Your task to perform on an android device: open app "NewsBreak: Local News & Alerts" (install if not already installed) and enter user name: "switch@outlook.com" and password: "fabrics" Image 0: 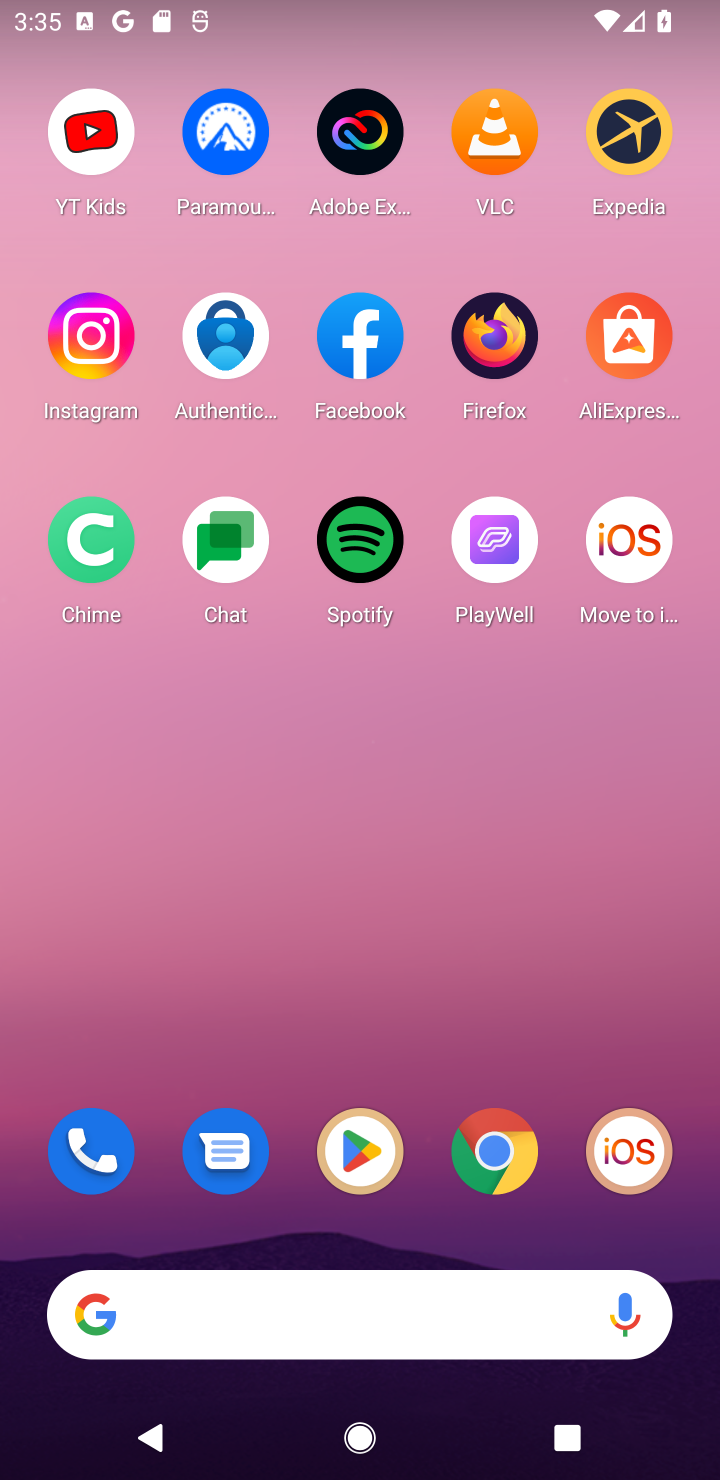
Step 0: press home button
Your task to perform on an android device: open app "NewsBreak: Local News & Alerts" (install if not already installed) and enter user name: "switch@outlook.com" and password: "fabrics" Image 1: 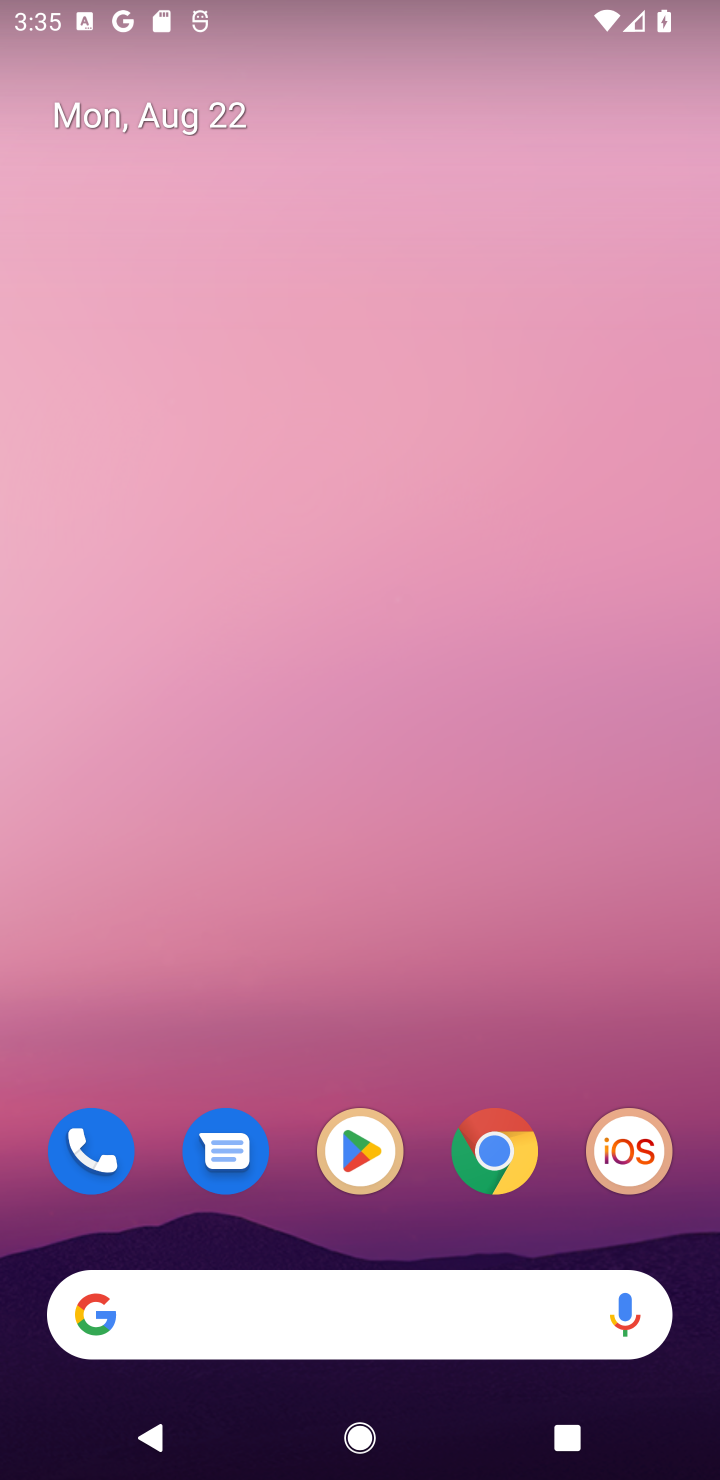
Step 1: click (365, 1136)
Your task to perform on an android device: open app "NewsBreak: Local News & Alerts" (install if not already installed) and enter user name: "switch@outlook.com" and password: "fabrics" Image 2: 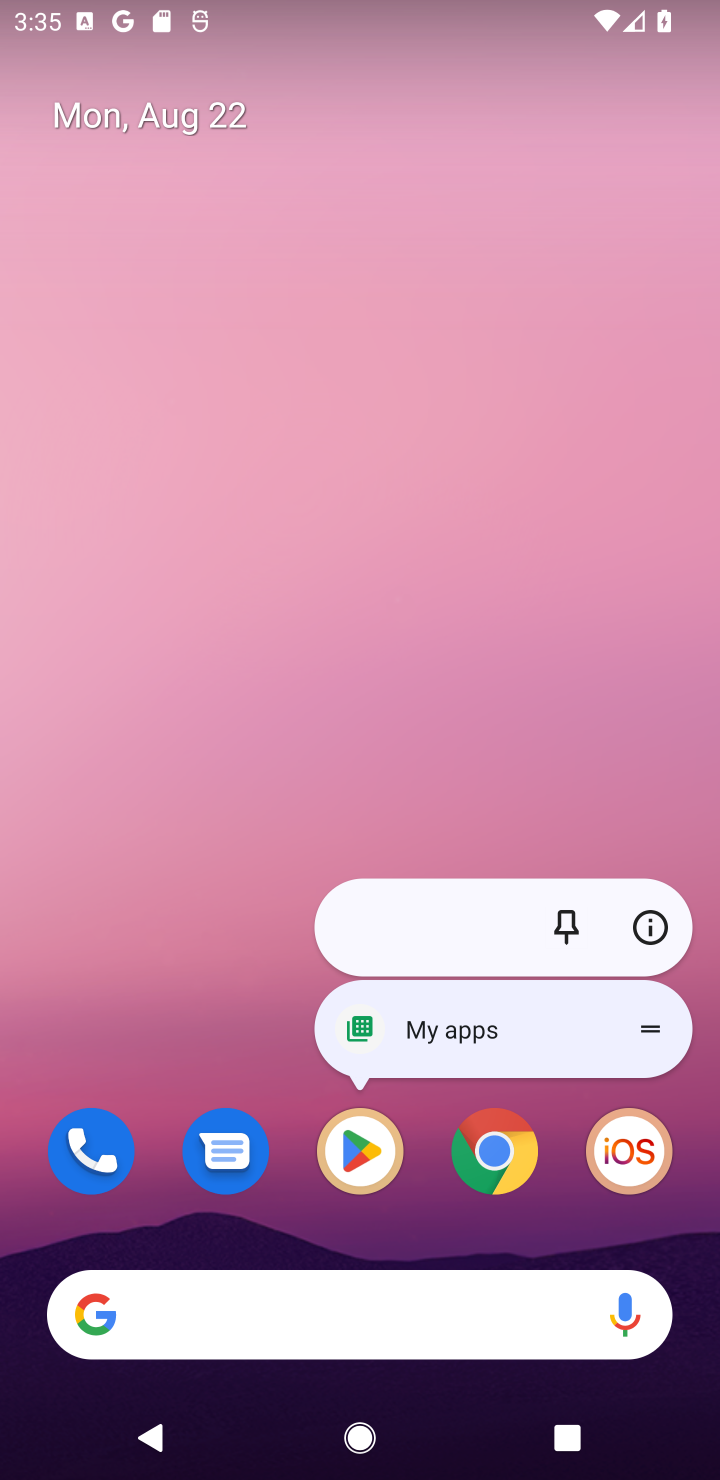
Step 2: click (365, 1143)
Your task to perform on an android device: open app "NewsBreak: Local News & Alerts" (install if not already installed) and enter user name: "switch@outlook.com" and password: "fabrics" Image 3: 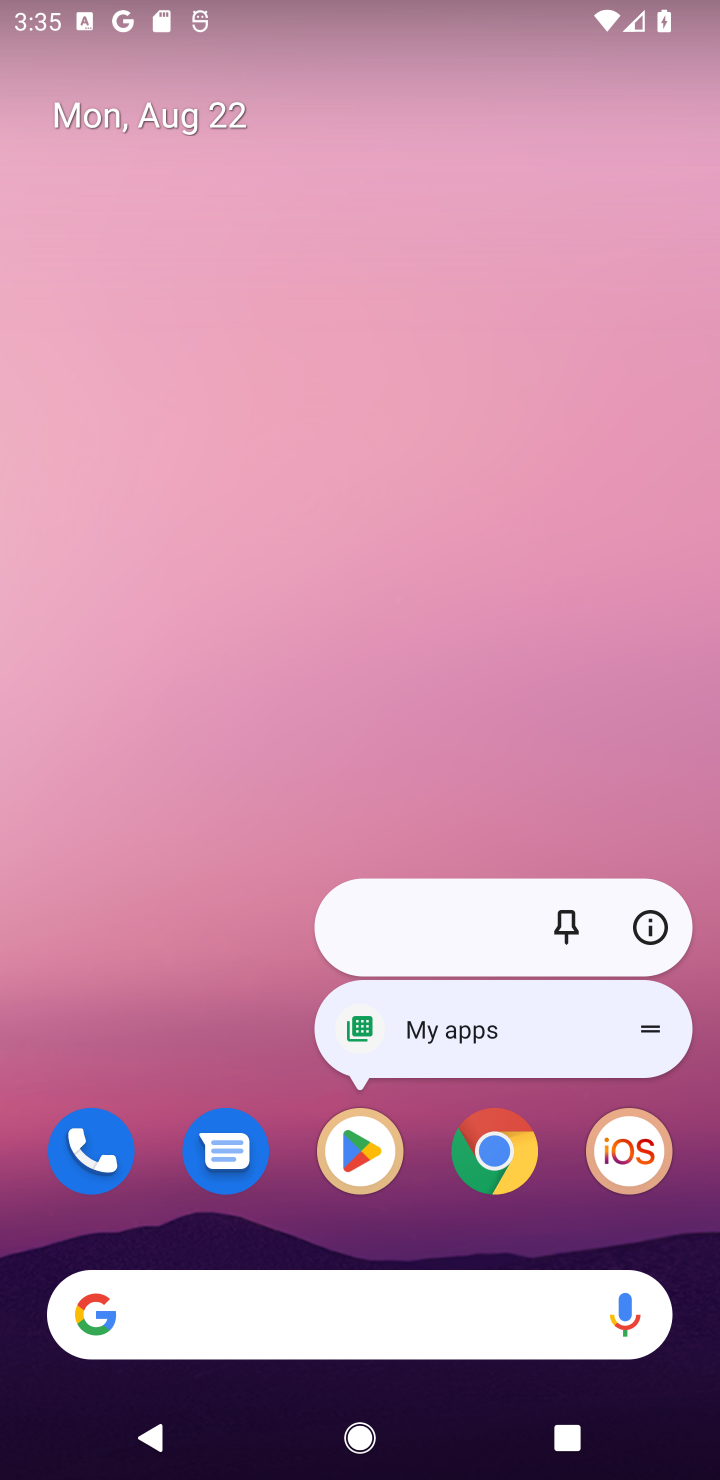
Step 3: click (365, 1134)
Your task to perform on an android device: open app "NewsBreak: Local News & Alerts" (install if not already installed) and enter user name: "switch@outlook.com" and password: "fabrics" Image 4: 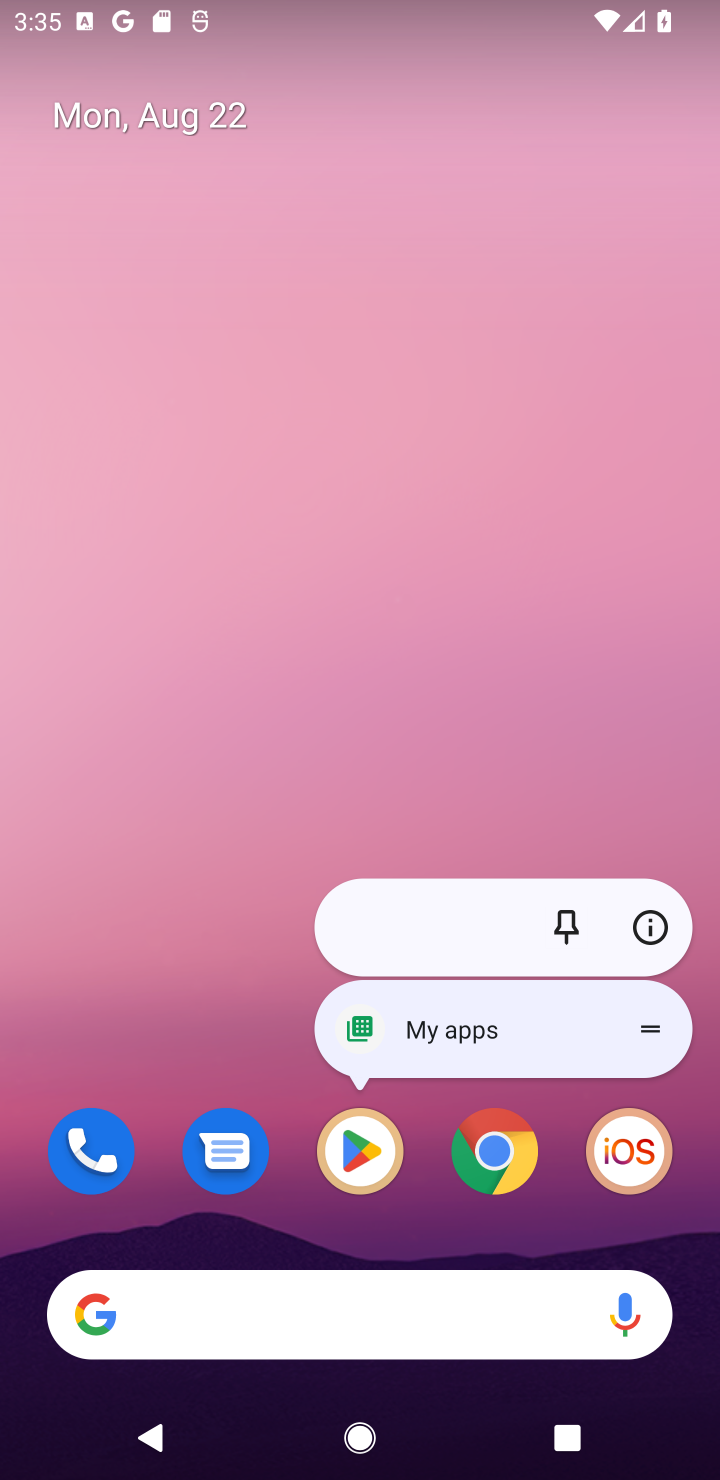
Step 4: click (359, 1153)
Your task to perform on an android device: open app "NewsBreak: Local News & Alerts" (install if not already installed) and enter user name: "switch@outlook.com" and password: "fabrics" Image 5: 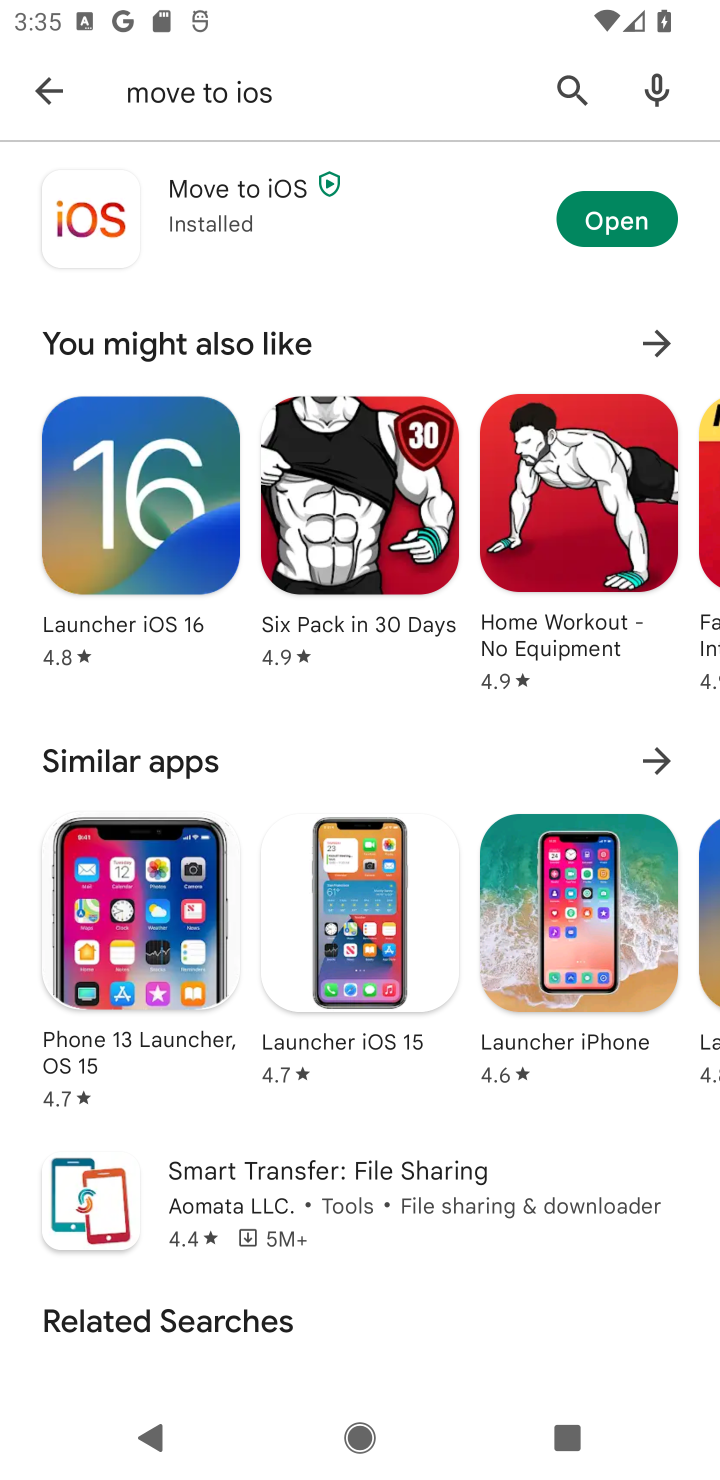
Step 5: click (562, 91)
Your task to perform on an android device: open app "NewsBreak: Local News & Alerts" (install if not already installed) and enter user name: "switch@outlook.com" and password: "fabrics" Image 6: 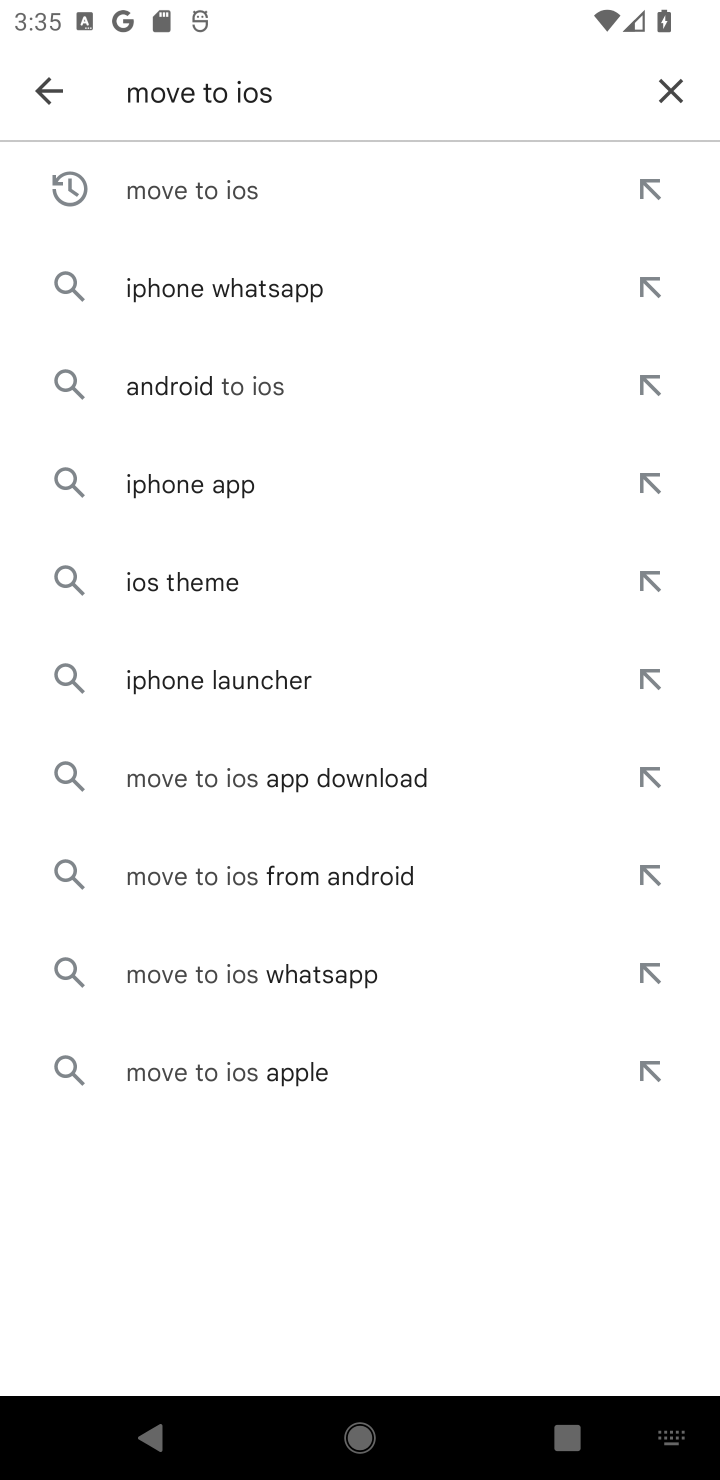
Step 6: click (681, 78)
Your task to perform on an android device: open app "NewsBreak: Local News & Alerts" (install if not already installed) and enter user name: "switch@outlook.com" and password: "fabrics" Image 7: 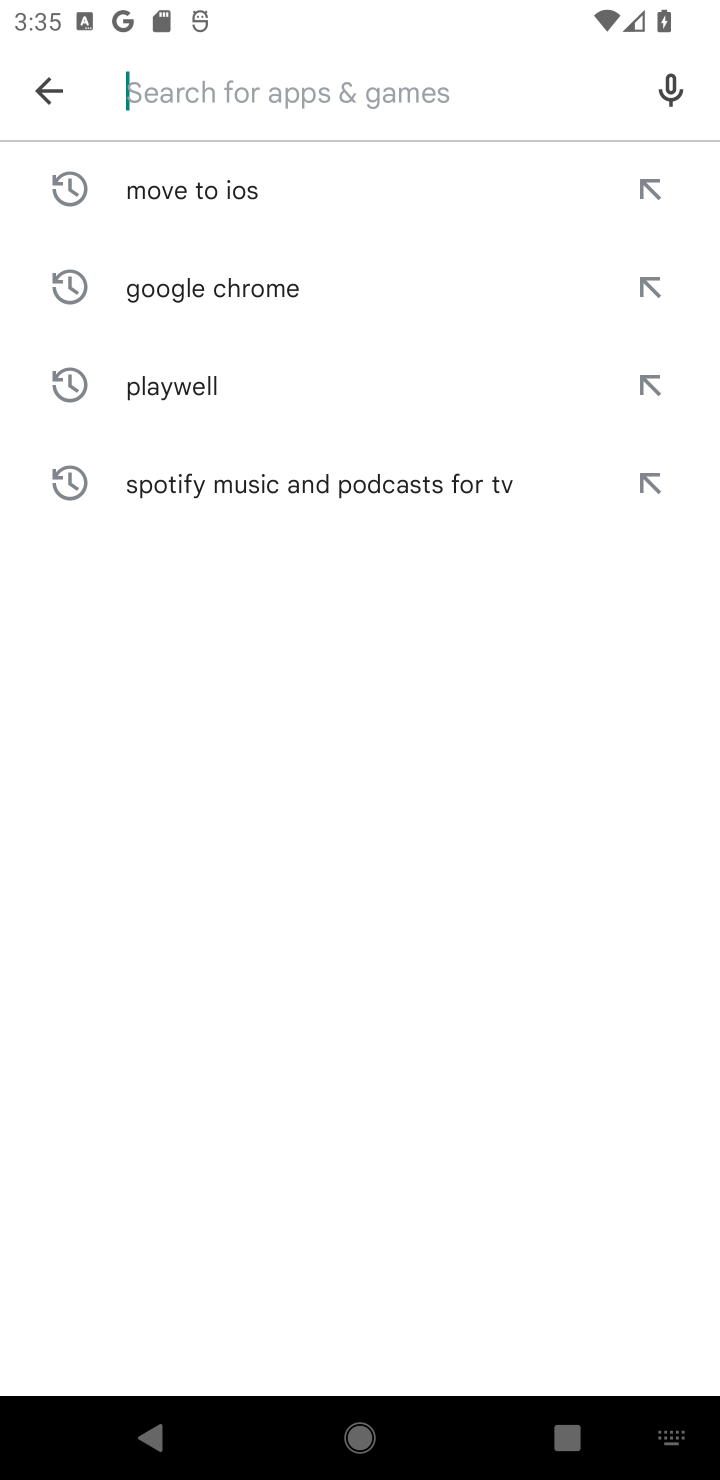
Step 7: type "NewsBreak: Local News & Alerts"
Your task to perform on an android device: open app "NewsBreak: Local News & Alerts" (install if not already installed) and enter user name: "switch@outlook.com" and password: "fabrics" Image 8: 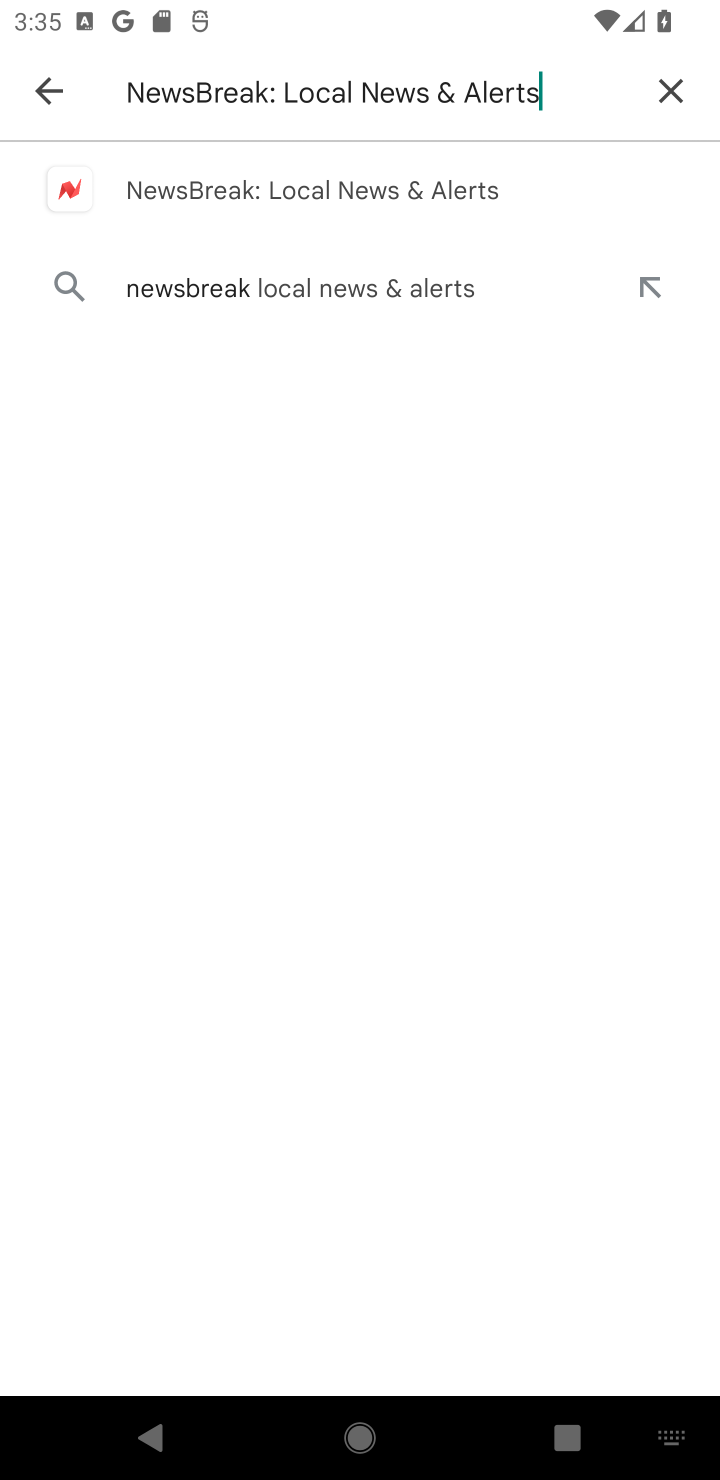
Step 8: click (361, 193)
Your task to perform on an android device: open app "NewsBreak: Local News & Alerts" (install if not already installed) and enter user name: "switch@outlook.com" and password: "fabrics" Image 9: 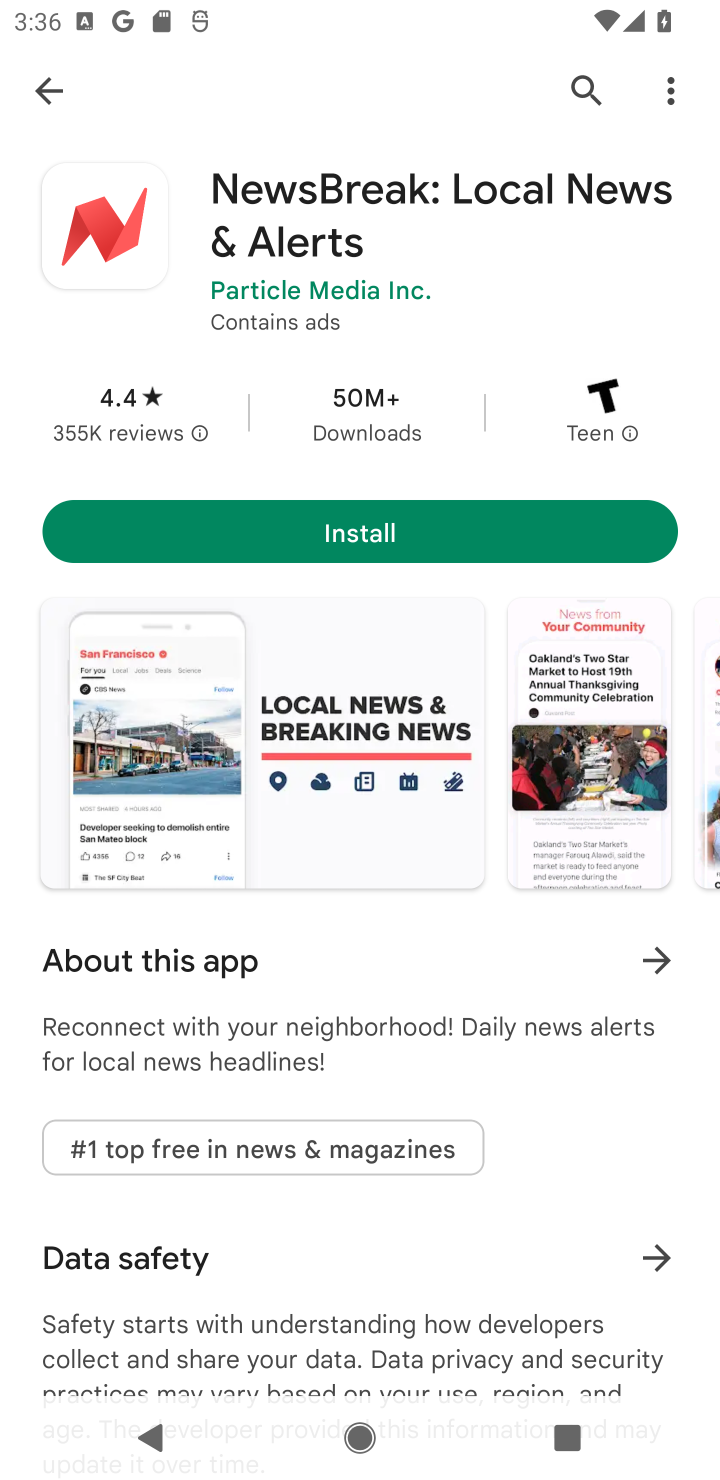
Step 9: click (348, 538)
Your task to perform on an android device: open app "NewsBreak: Local News & Alerts" (install if not already installed) and enter user name: "switch@outlook.com" and password: "fabrics" Image 10: 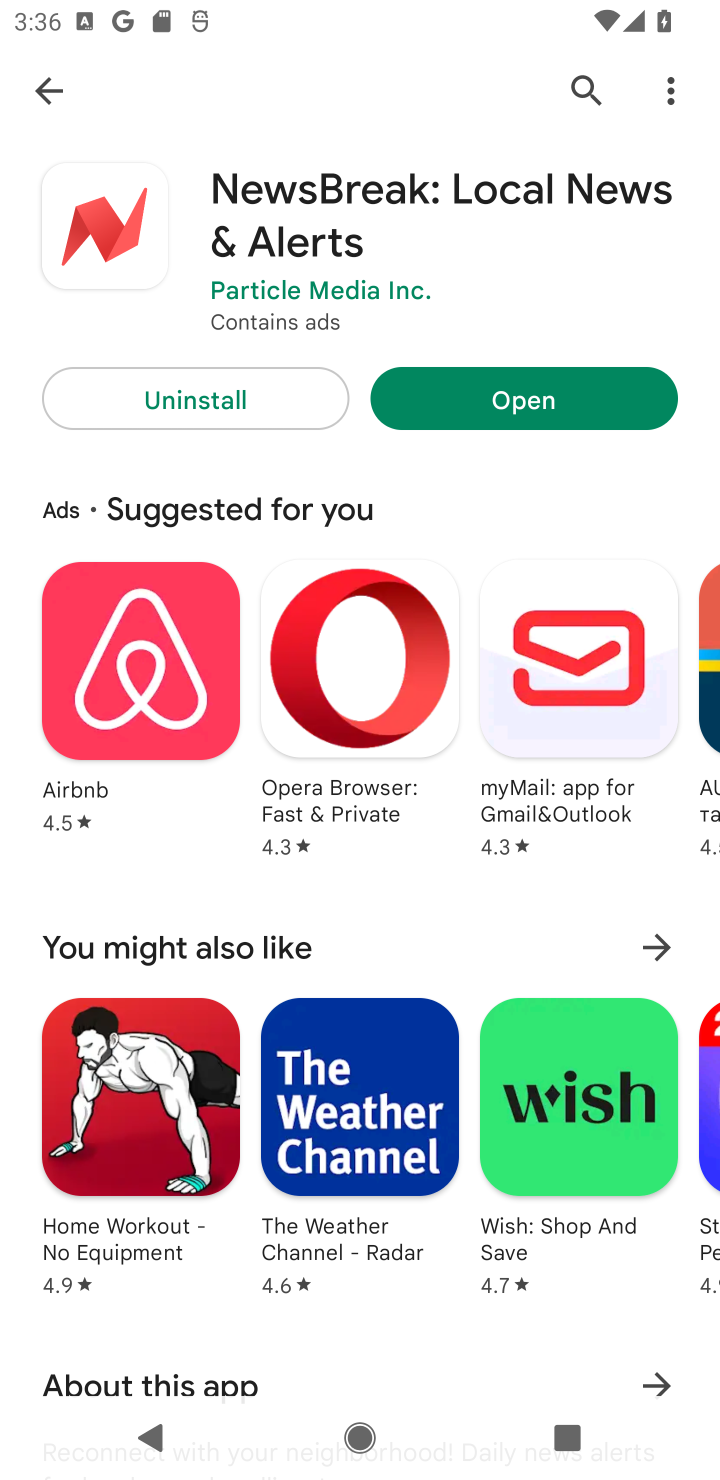
Step 10: click (564, 398)
Your task to perform on an android device: open app "NewsBreak: Local News & Alerts" (install if not already installed) and enter user name: "switch@outlook.com" and password: "fabrics" Image 11: 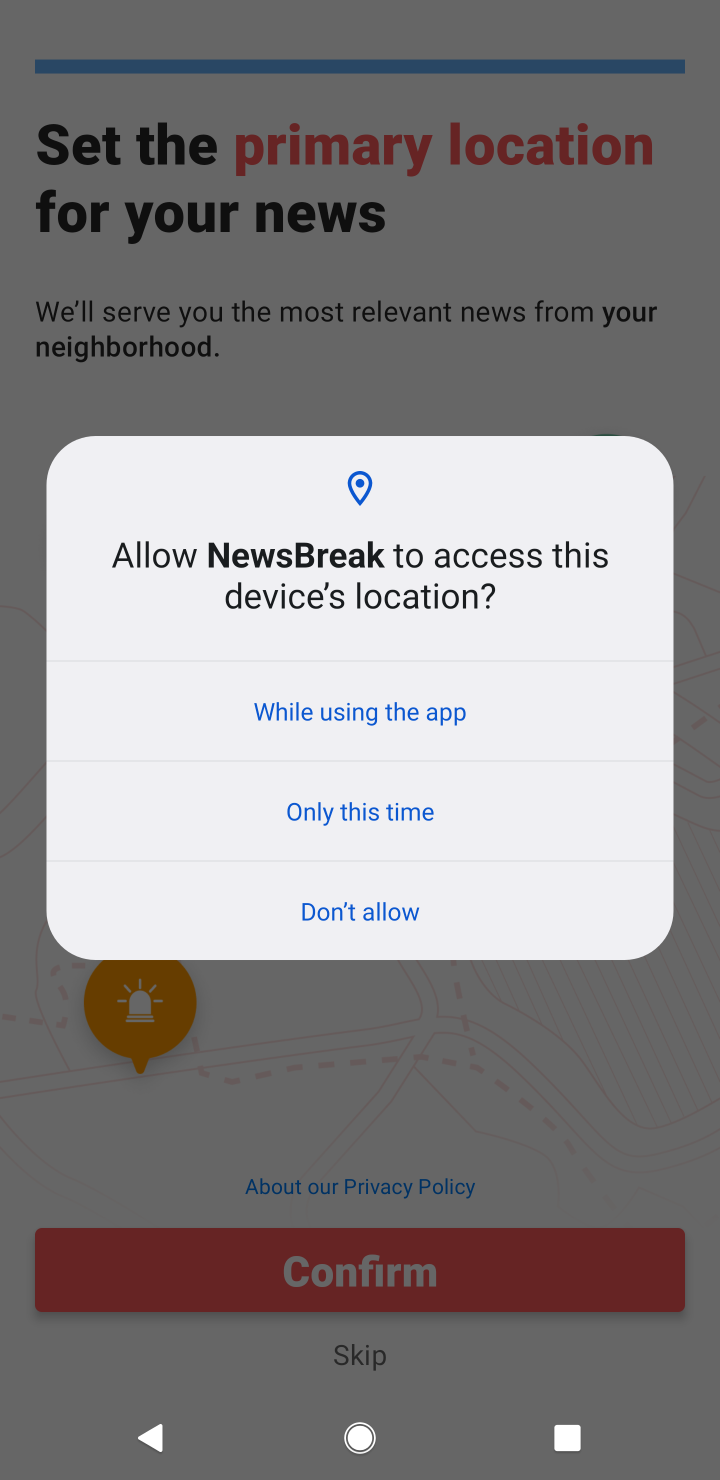
Step 11: click (409, 808)
Your task to perform on an android device: open app "NewsBreak: Local News & Alerts" (install if not already installed) and enter user name: "switch@outlook.com" and password: "fabrics" Image 12: 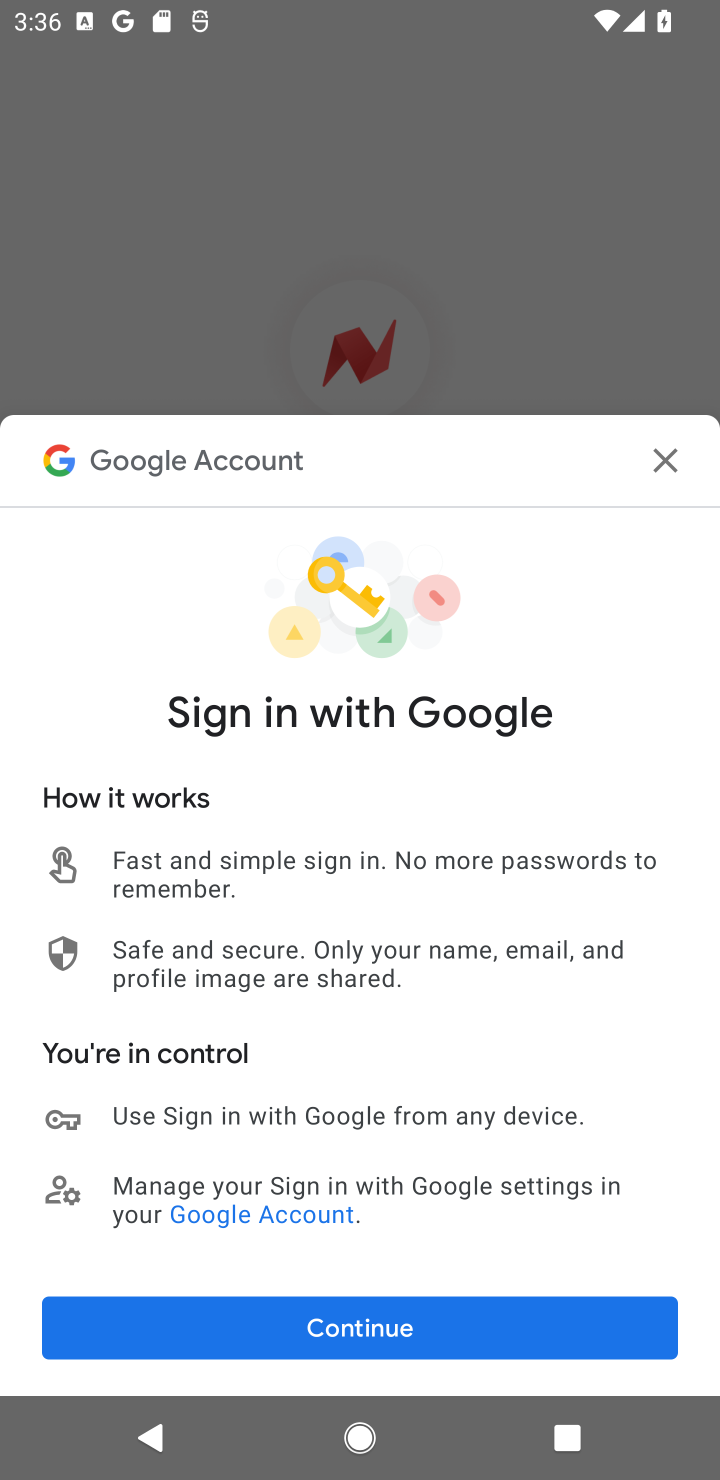
Step 12: click (373, 1317)
Your task to perform on an android device: open app "NewsBreak: Local News & Alerts" (install if not already installed) and enter user name: "switch@outlook.com" and password: "fabrics" Image 13: 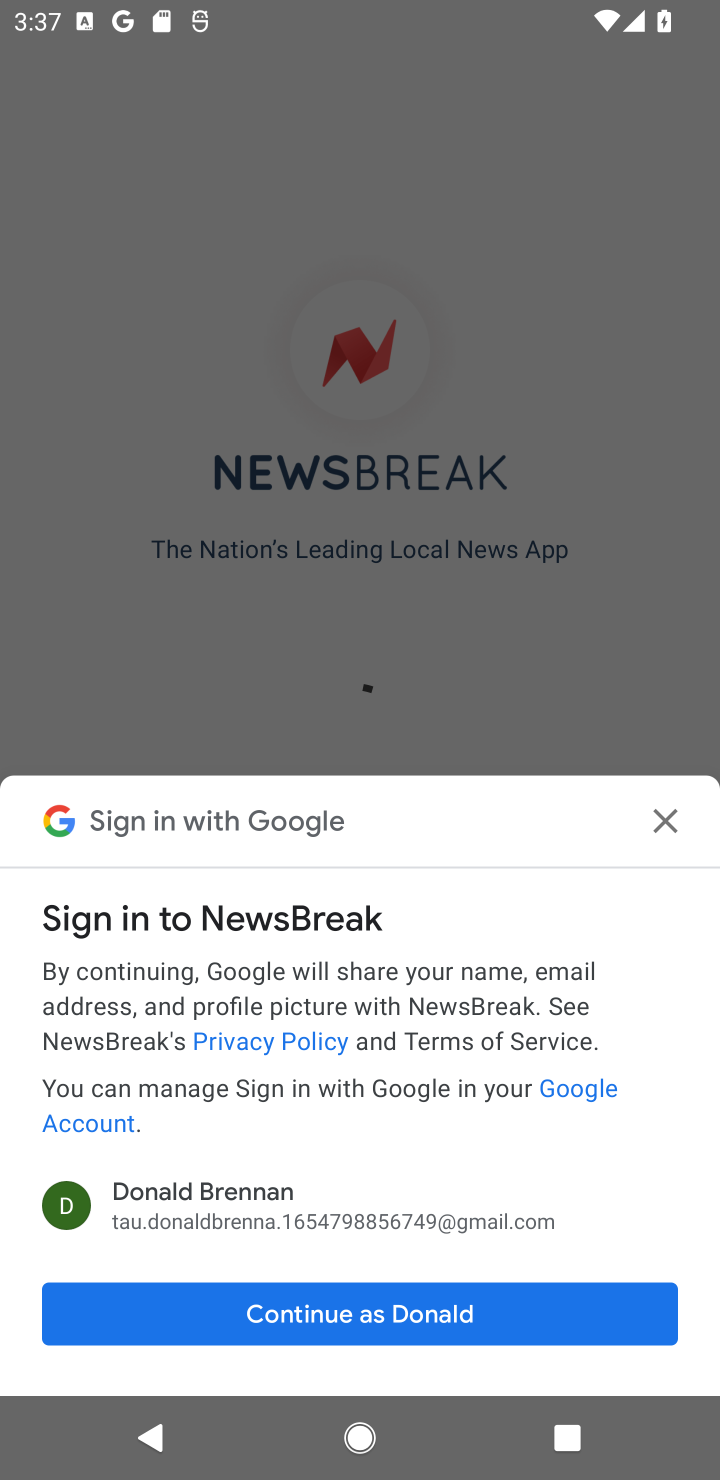
Step 13: click (660, 818)
Your task to perform on an android device: open app "NewsBreak: Local News & Alerts" (install if not already installed) and enter user name: "switch@outlook.com" and password: "fabrics" Image 14: 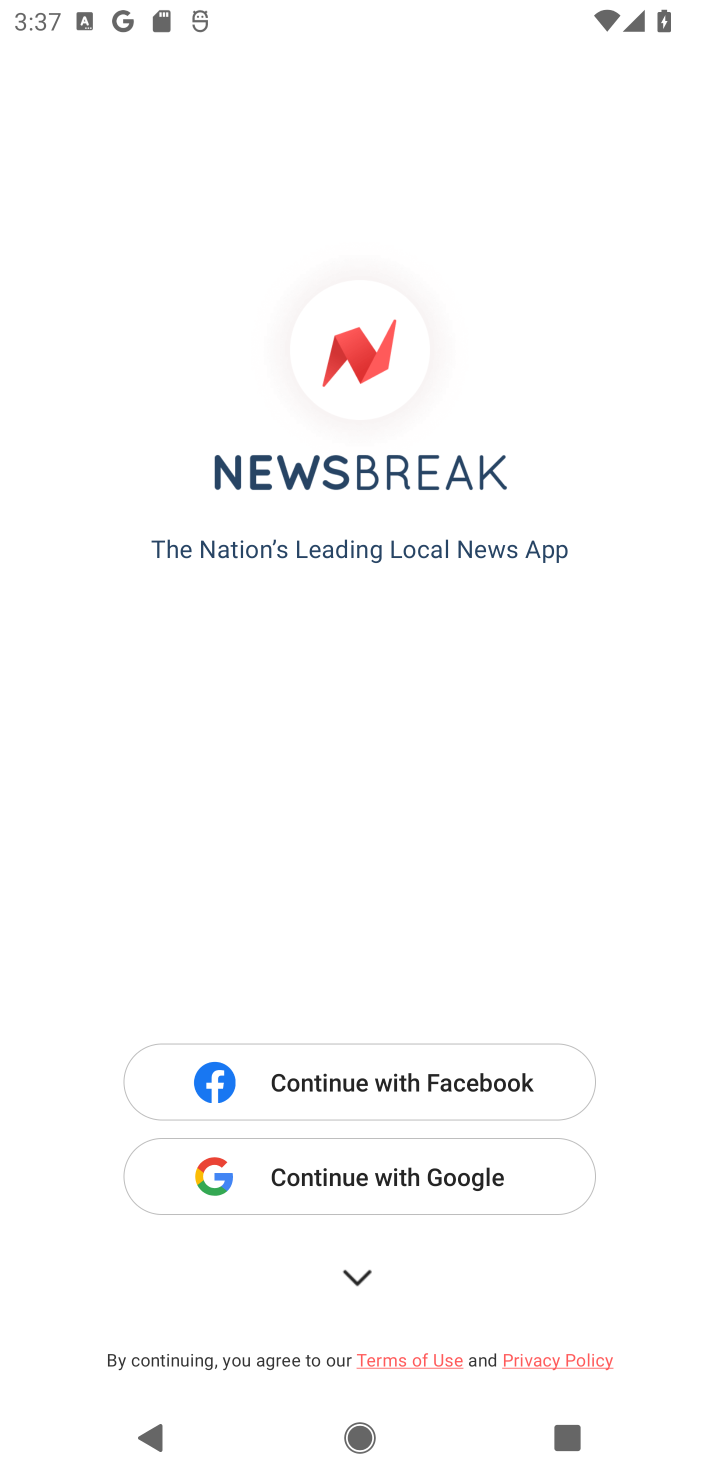
Step 14: task complete